Your task to perform on an android device: Go to privacy settings Image 0: 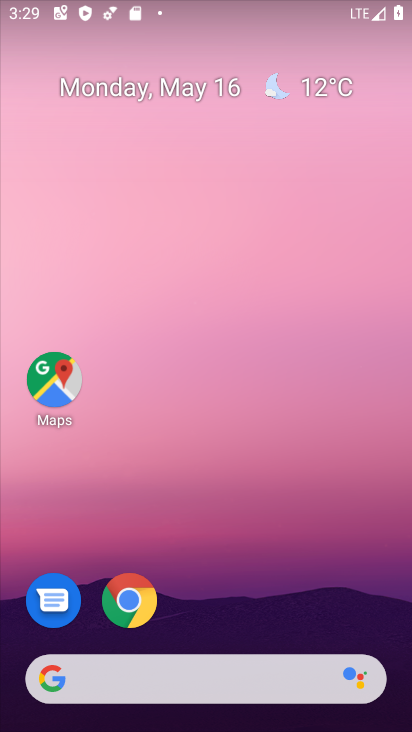
Step 0: drag from (249, 566) to (262, 53)
Your task to perform on an android device: Go to privacy settings Image 1: 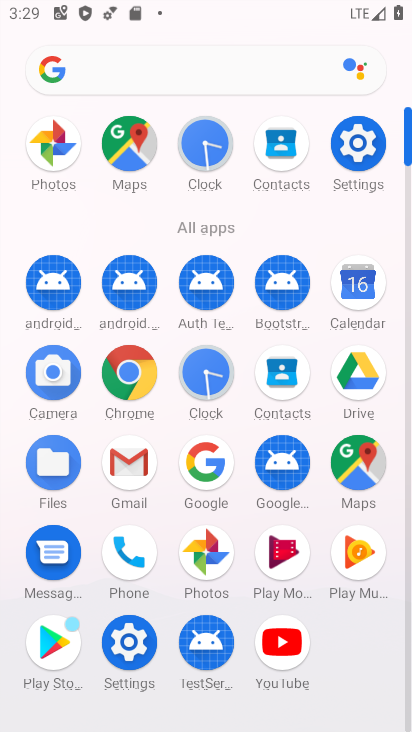
Step 1: click (352, 148)
Your task to perform on an android device: Go to privacy settings Image 2: 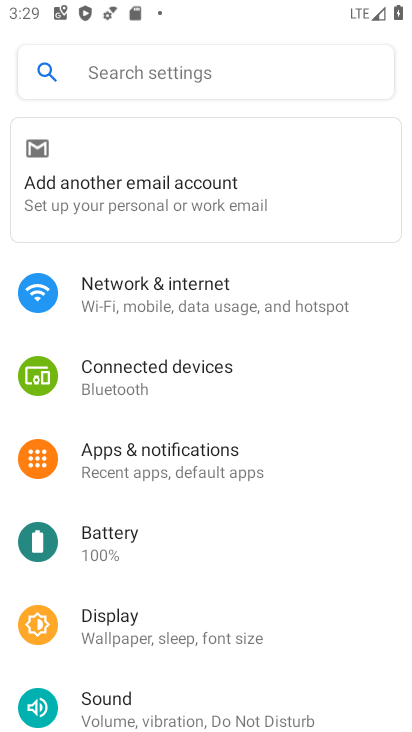
Step 2: drag from (218, 517) to (226, 133)
Your task to perform on an android device: Go to privacy settings Image 3: 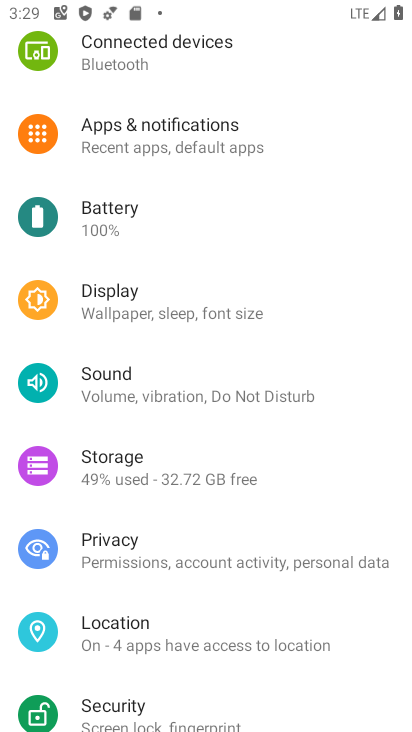
Step 3: click (184, 556)
Your task to perform on an android device: Go to privacy settings Image 4: 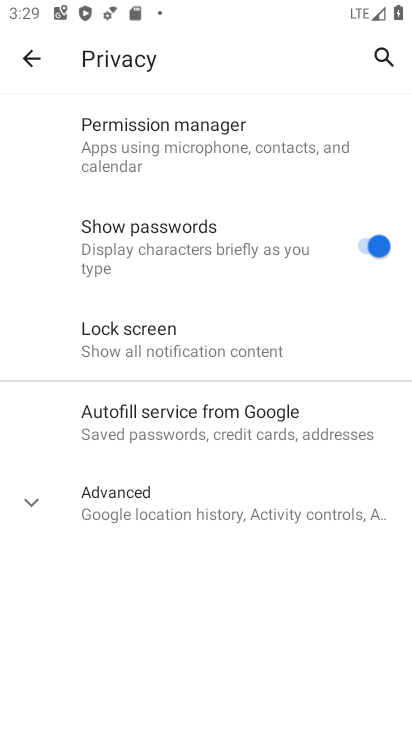
Step 4: task complete